Your task to perform on an android device: Open eBay Image 0: 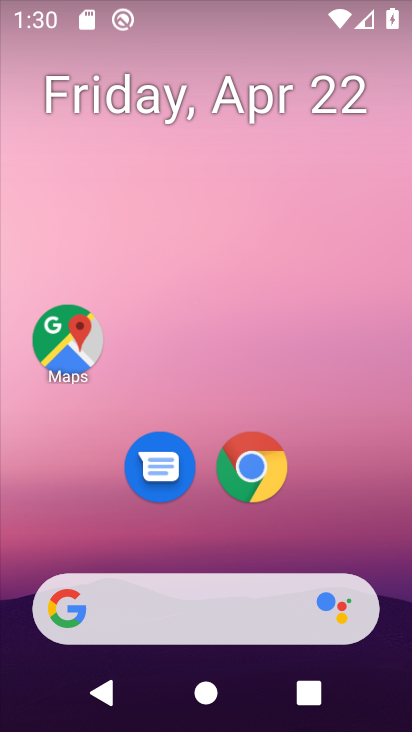
Step 0: click (270, 488)
Your task to perform on an android device: Open eBay Image 1: 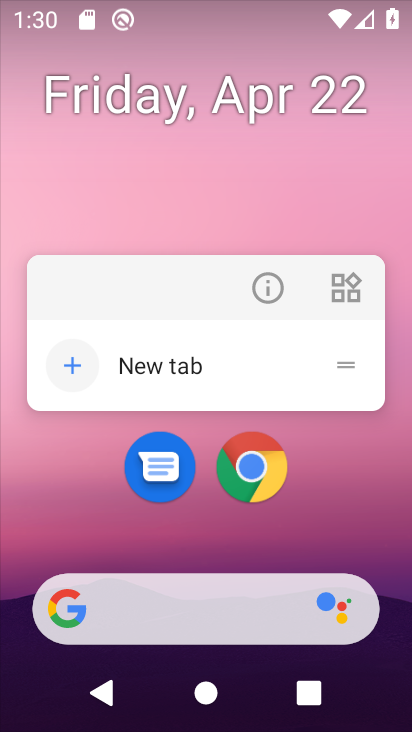
Step 1: click (253, 463)
Your task to perform on an android device: Open eBay Image 2: 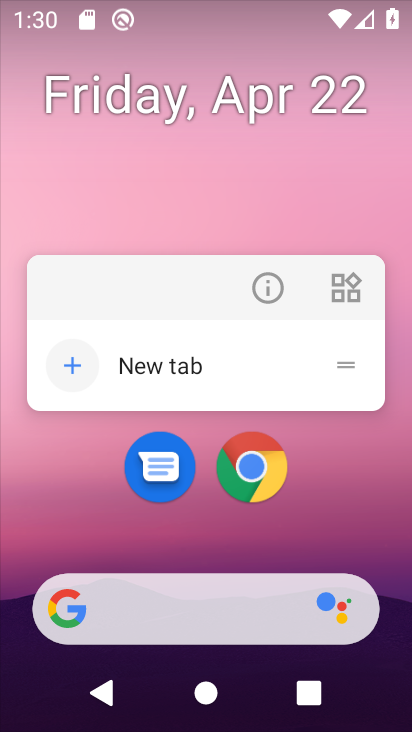
Step 2: click (255, 475)
Your task to perform on an android device: Open eBay Image 3: 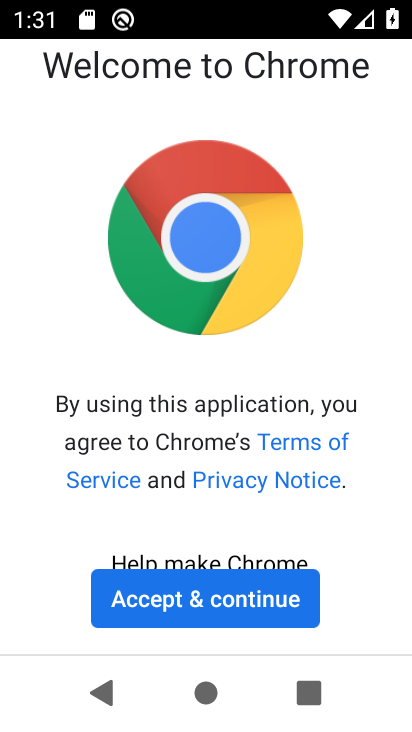
Step 3: click (207, 600)
Your task to perform on an android device: Open eBay Image 4: 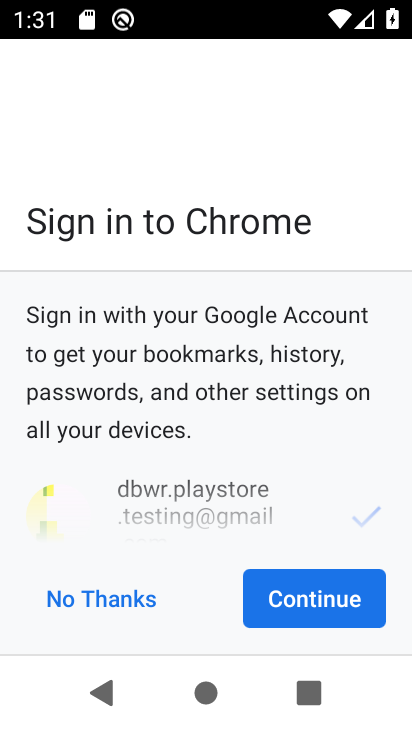
Step 4: click (267, 608)
Your task to perform on an android device: Open eBay Image 5: 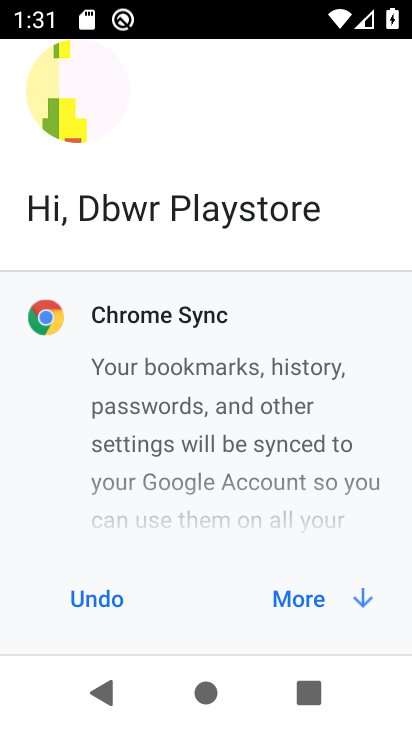
Step 5: click (286, 593)
Your task to perform on an android device: Open eBay Image 6: 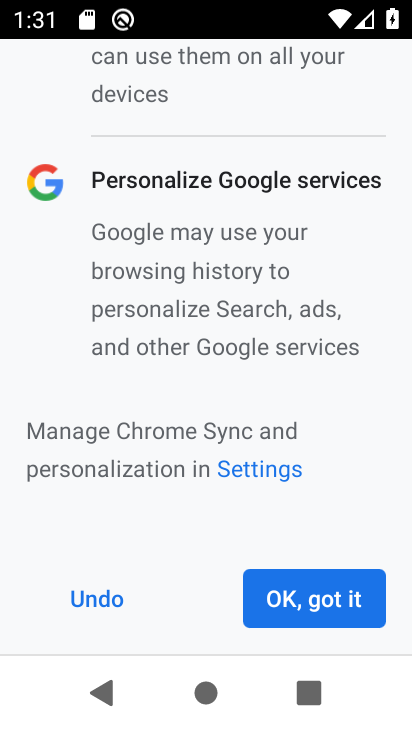
Step 6: click (286, 593)
Your task to perform on an android device: Open eBay Image 7: 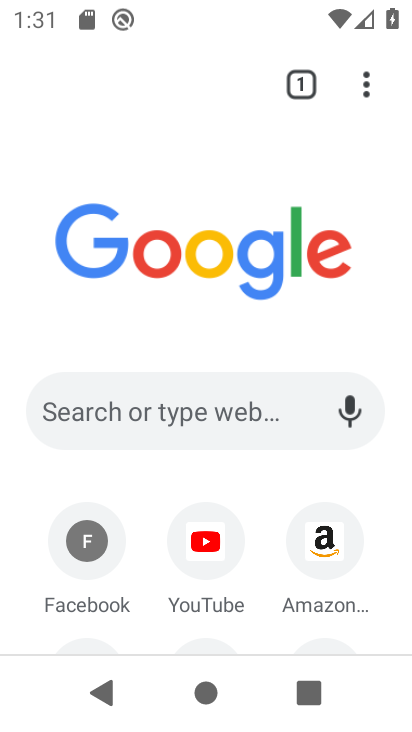
Step 7: click (206, 418)
Your task to perform on an android device: Open eBay Image 8: 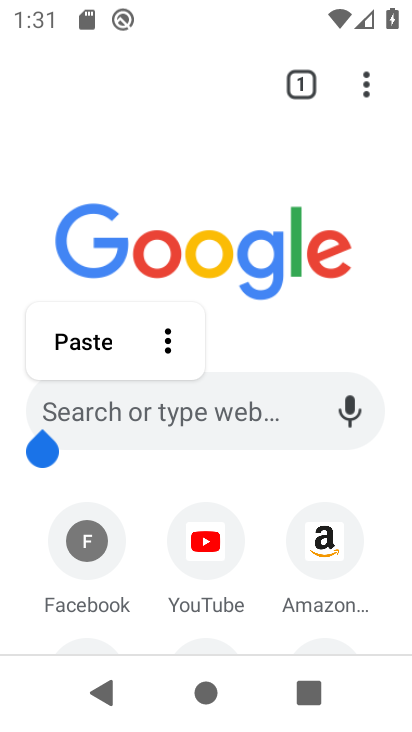
Step 8: type "ebay"
Your task to perform on an android device: Open eBay Image 9: 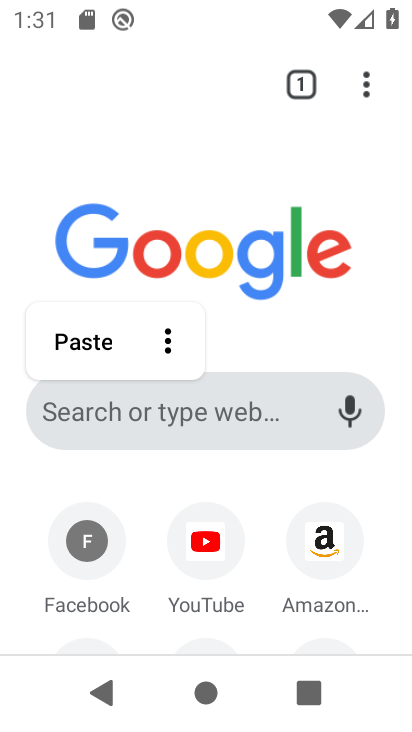
Step 9: click (287, 424)
Your task to perform on an android device: Open eBay Image 10: 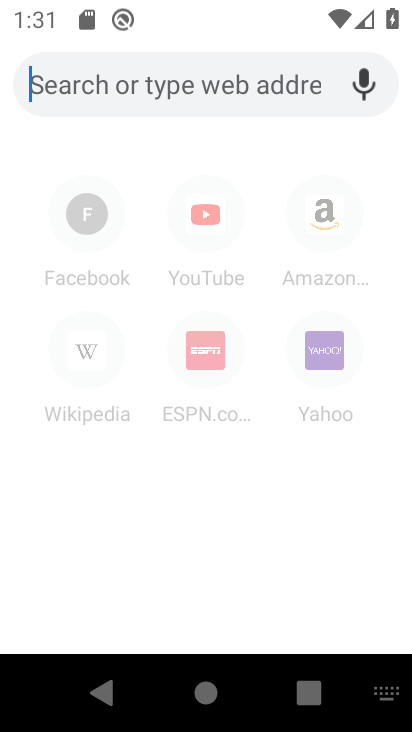
Step 10: type "ebay"
Your task to perform on an android device: Open eBay Image 11: 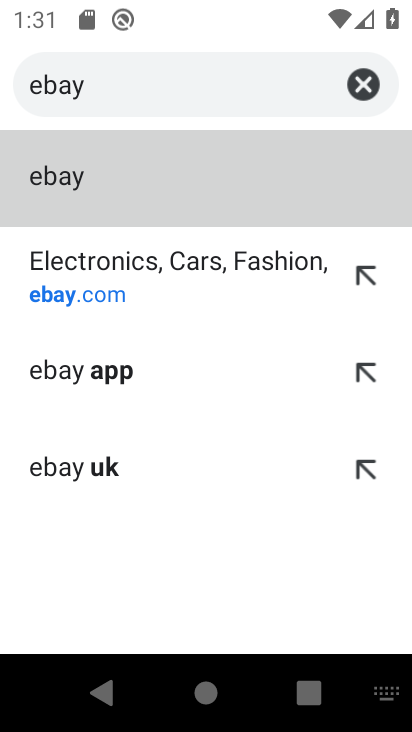
Step 11: click (114, 301)
Your task to perform on an android device: Open eBay Image 12: 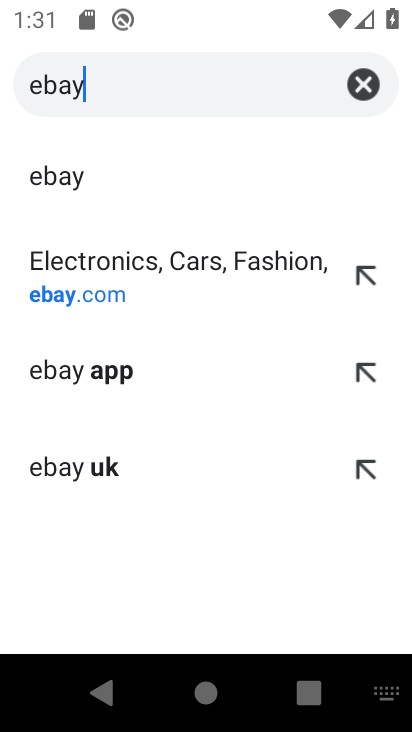
Step 12: click (84, 297)
Your task to perform on an android device: Open eBay Image 13: 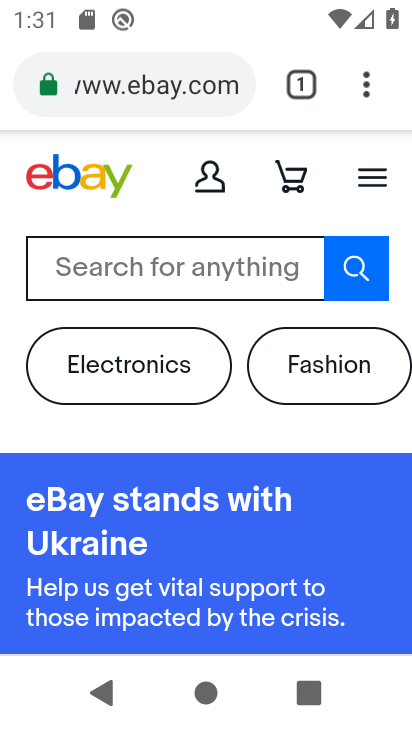
Step 13: task complete